Your task to perform on an android device: see sites visited before in the chrome app Image 0: 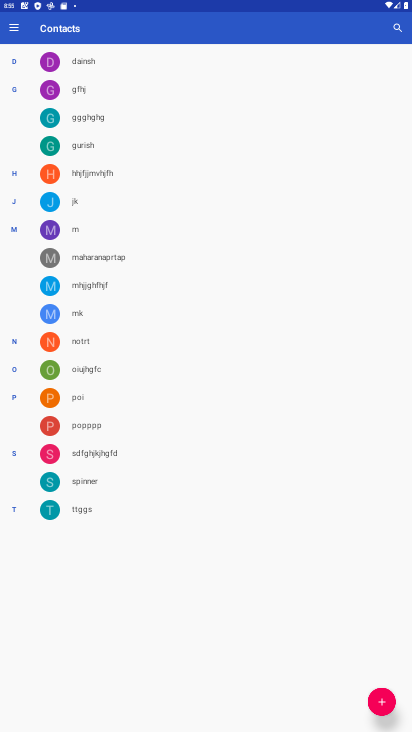
Step 0: press home button
Your task to perform on an android device: see sites visited before in the chrome app Image 1: 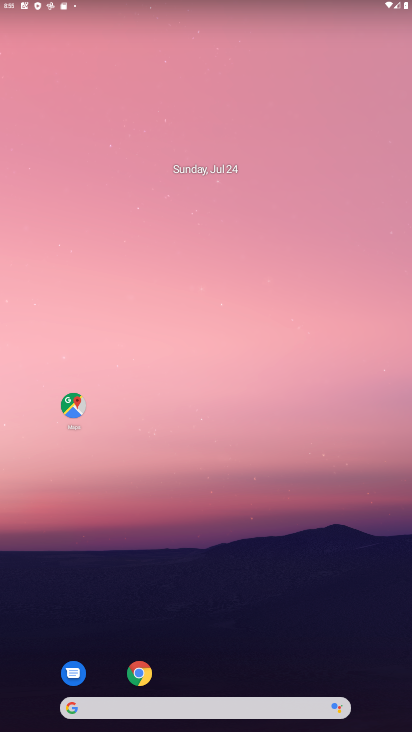
Step 1: click (142, 671)
Your task to perform on an android device: see sites visited before in the chrome app Image 2: 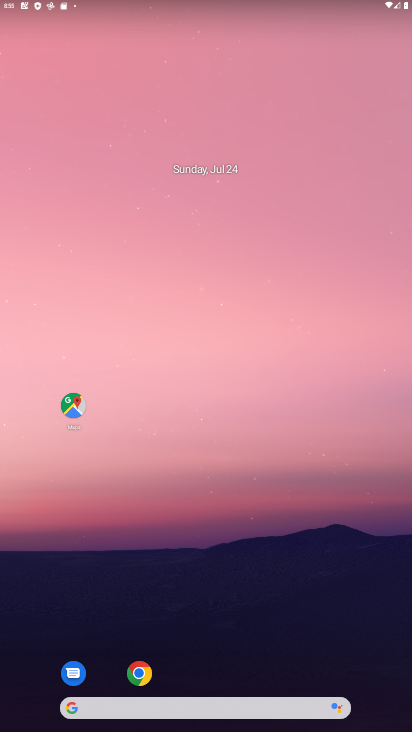
Step 2: click (142, 671)
Your task to perform on an android device: see sites visited before in the chrome app Image 3: 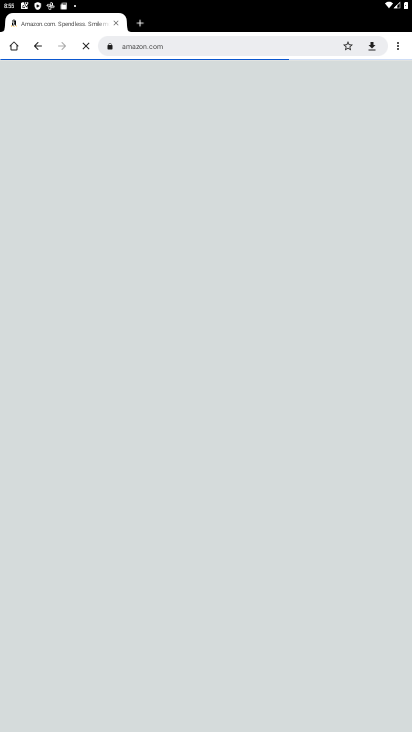
Step 3: click (395, 48)
Your task to perform on an android device: see sites visited before in the chrome app Image 4: 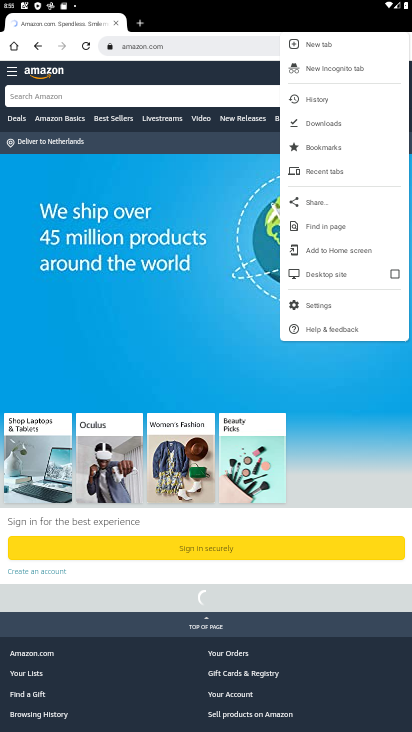
Step 4: click (399, 48)
Your task to perform on an android device: see sites visited before in the chrome app Image 5: 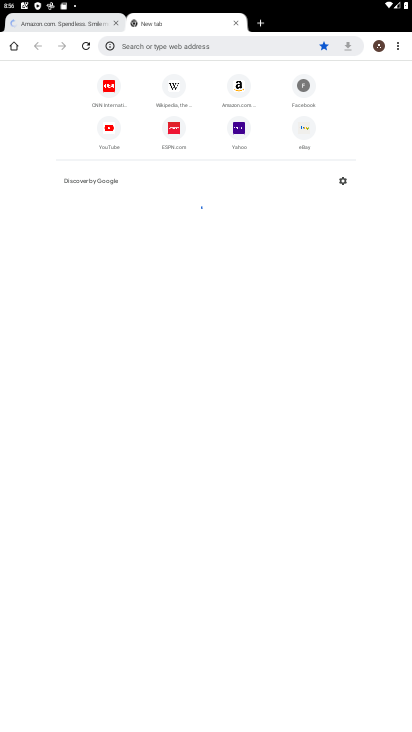
Step 5: click (396, 41)
Your task to perform on an android device: see sites visited before in the chrome app Image 6: 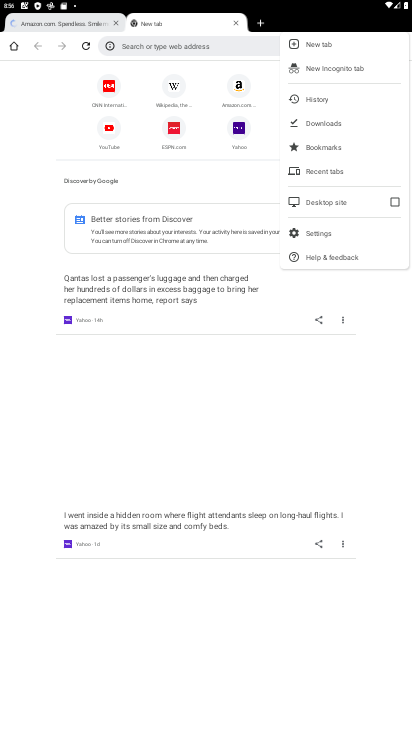
Step 6: click (313, 103)
Your task to perform on an android device: see sites visited before in the chrome app Image 7: 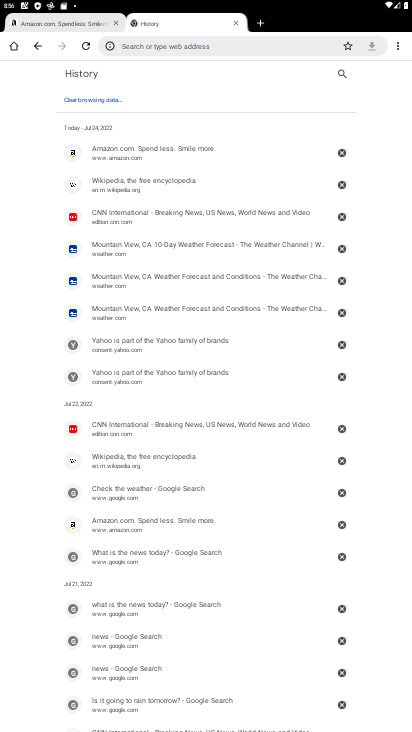
Step 7: task complete